Your task to perform on an android device: Open my contact list Image 0: 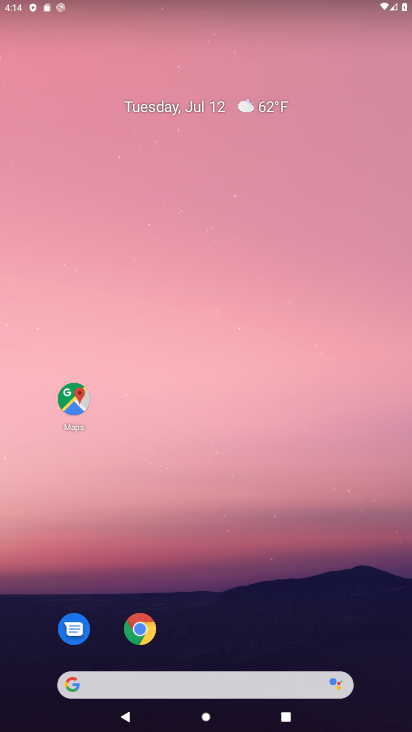
Step 0: drag from (169, 669) to (123, 29)
Your task to perform on an android device: Open my contact list Image 1: 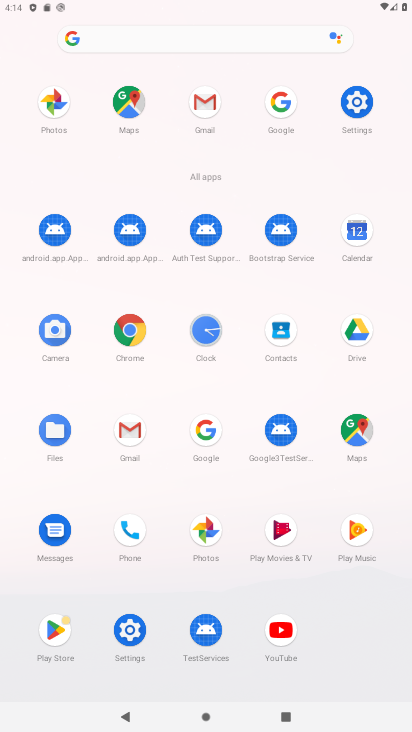
Step 1: click (116, 536)
Your task to perform on an android device: Open my contact list Image 2: 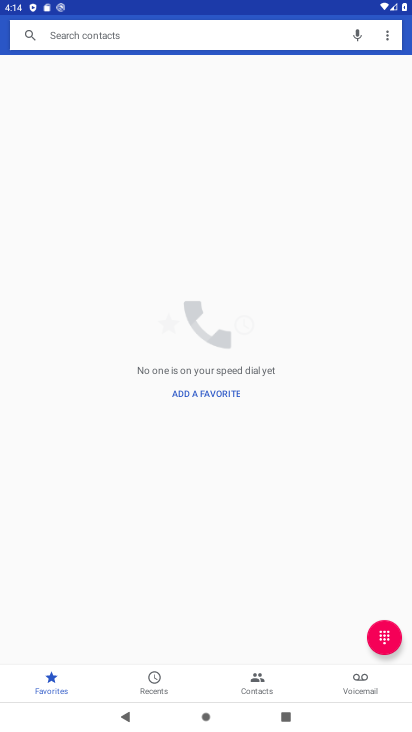
Step 2: click (267, 678)
Your task to perform on an android device: Open my contact list Image 3: 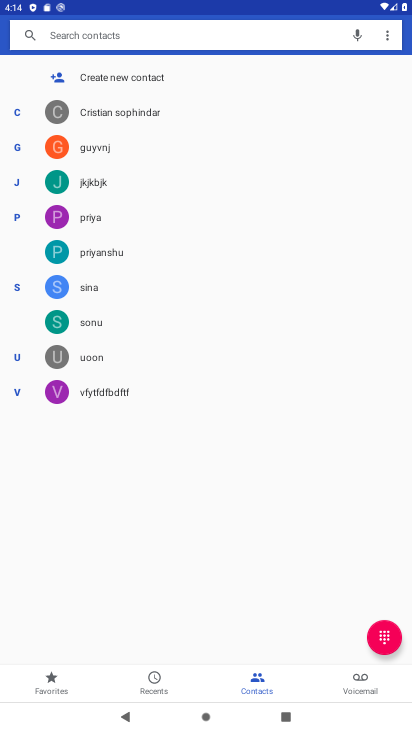
Step 3: task complete